Your task to perform on an android device: Is it going to rain today? Image 0: 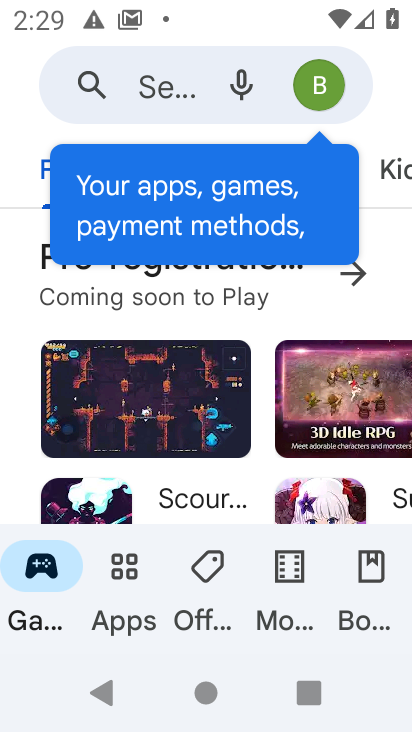
Step 0: press home button
Your task to perform on an android device: Is it going to rain today? Image 1: 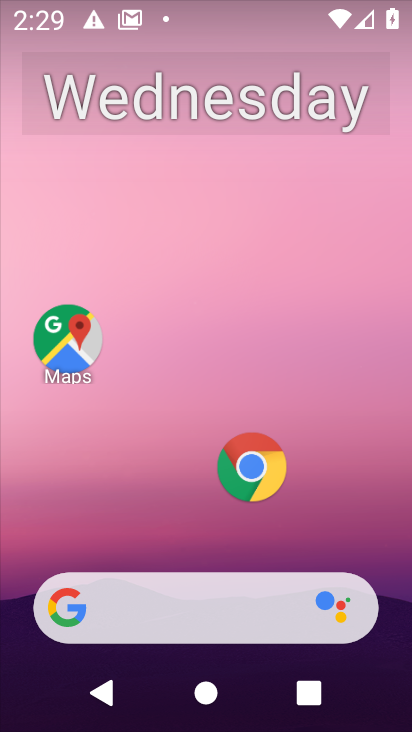
Step 1: click (187, 623)
Your task to perform on an android device: Is it going to rain today? Image 2: 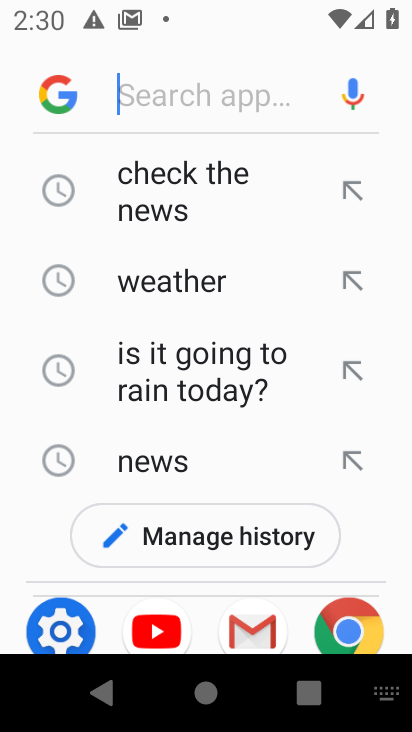
Step 2: type "Is it going to rain today?"
Your task to perform on an android device: Is it going to rain today? Image 3: 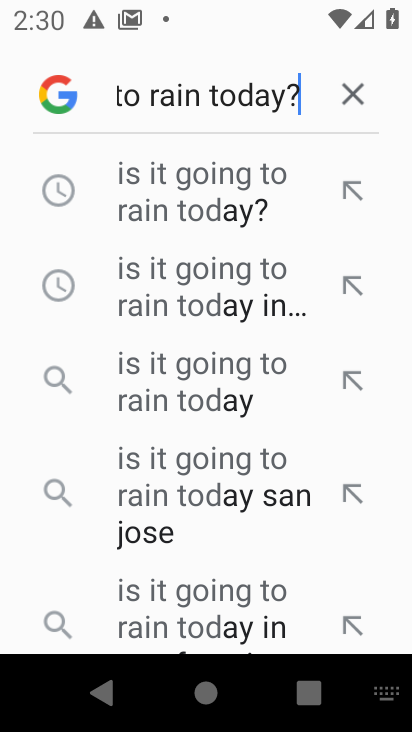
Step 3: press enter
Your task to perform on an android device: Is it going to rain today? Image 4: 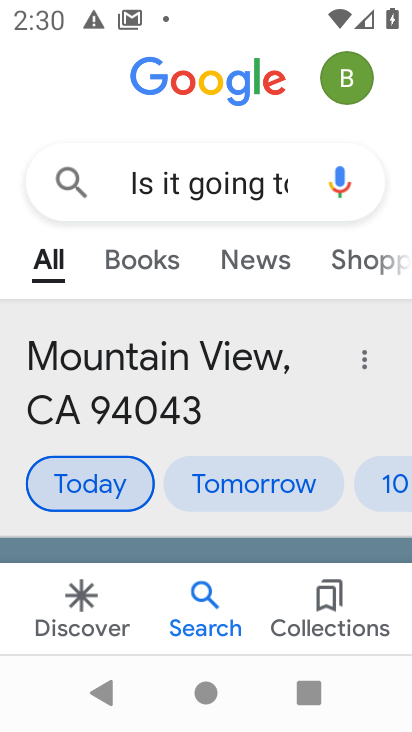
Step 4: task complete